Your task to perform on an android device: Open Amazon Image 0: 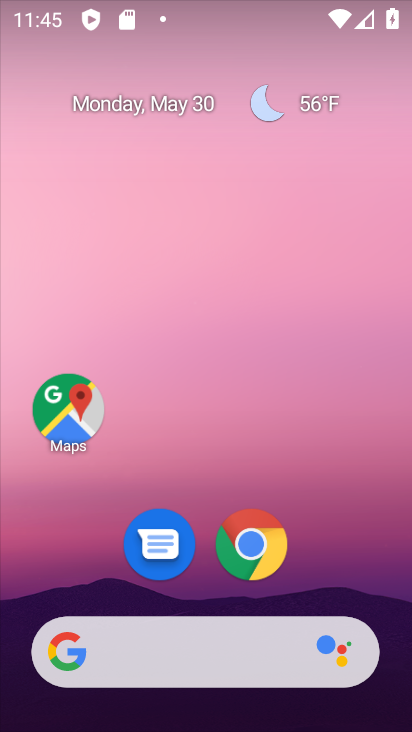
Step 0: click (242, 555)
Your task to perform on an android device: Open Amazon Image 1: 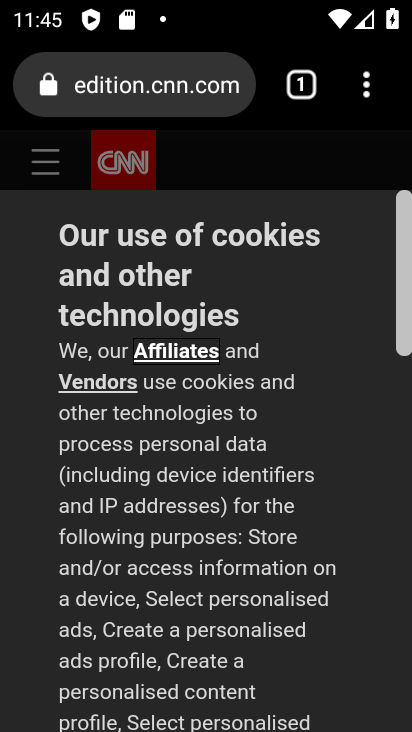
Step 1: click (361, 87)
Your task to perform on an android device: Open Amazon Image 2: 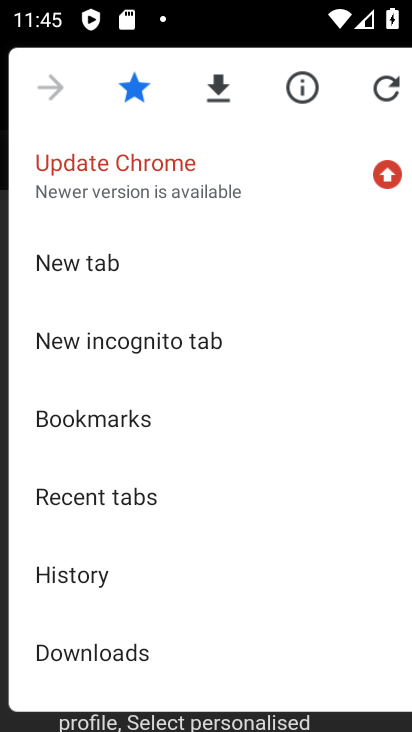
Step 2: click (84, 260)
Your task to perform on an android device: Open Amazon Image 3: 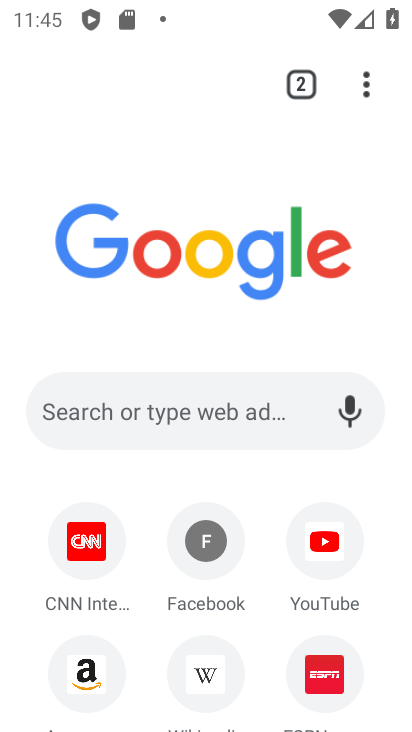
Step 3: click (76, 666)
Your task to perform on an android device: Open Amazon Image 4: 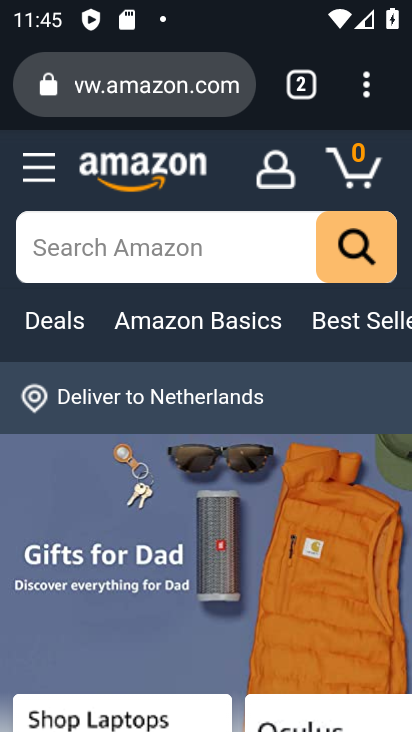
Step 4: task complete